Your task to perform on an android device: Go to Maps Image 0: 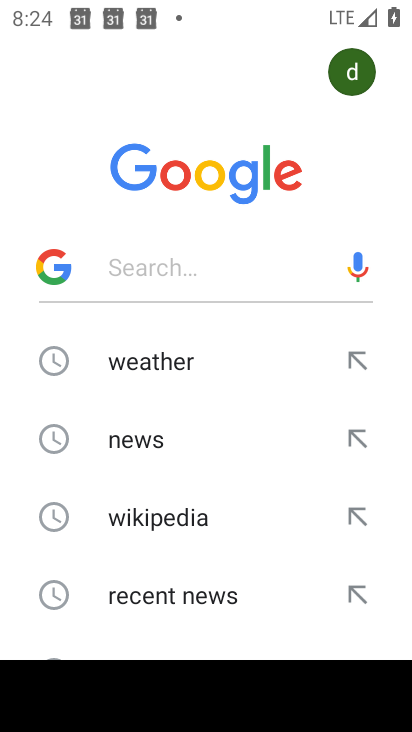
Step 0: press home button
Your task to perform on an android device: Go to Maps Image 1: 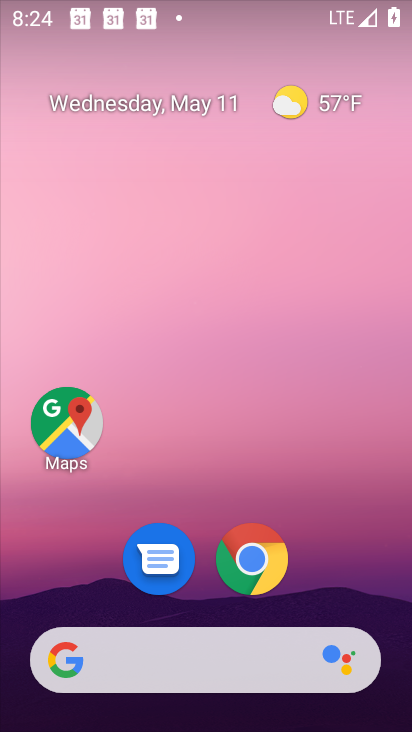
Step 1: click (46, 406)
Your task to perform on an android device: Go to Maps Image 2: 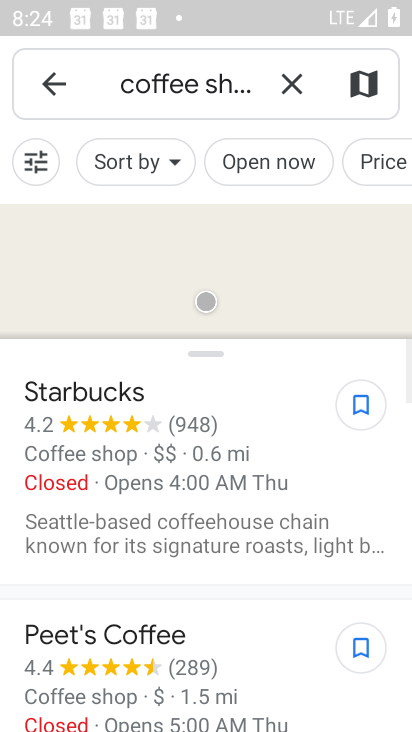
Step 2: task complete